Your task to perform on an android device: Go to location settings Image 0: 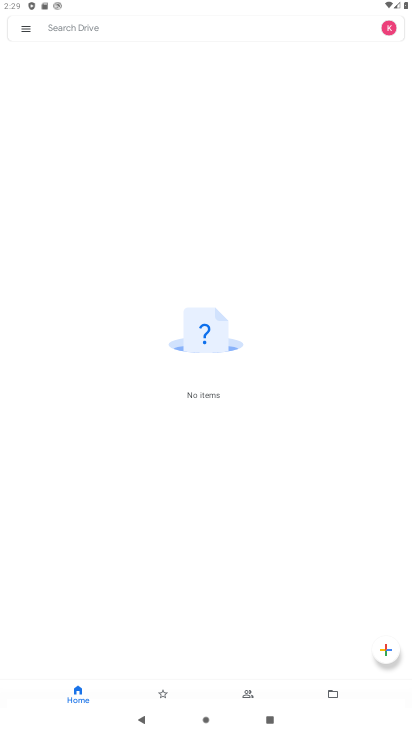
Step 0: press home button
Your task to perform on an android device: Go to location settings Image 1: 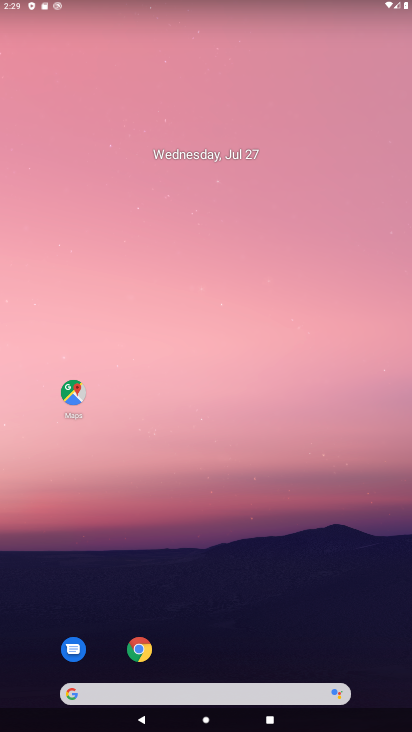
Step 1: drag from (324, 610) to (137, 43)
Your task to perform on an android device: Go to location settings Image 2: 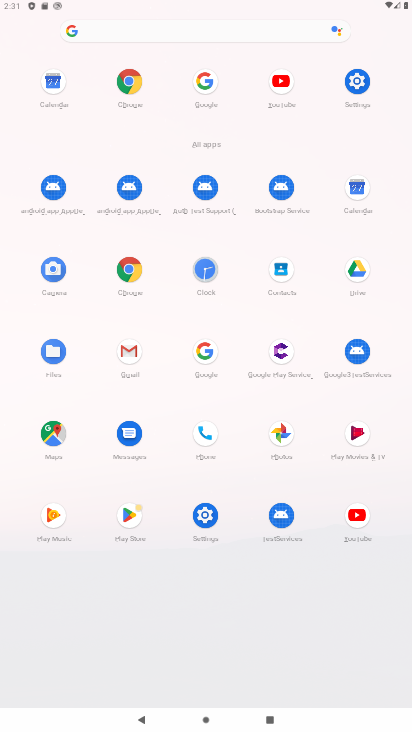
Step 2: click (192, 512)
Your task to perform on an android device: Go to location settings Image 3: 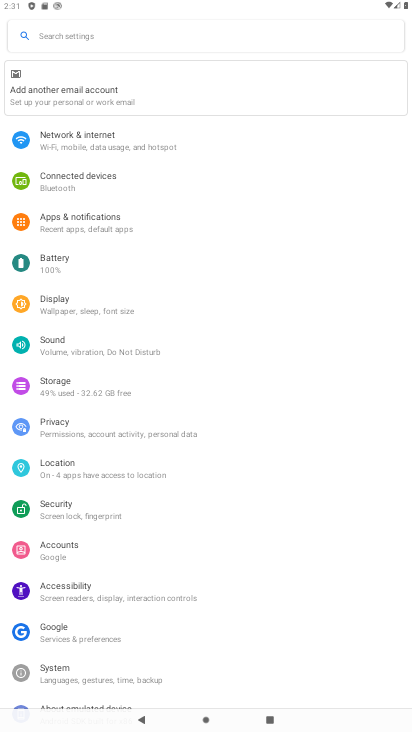
Step 3: click (68, 469)
Your task to perform on an android device: Go to location settings Image 4: 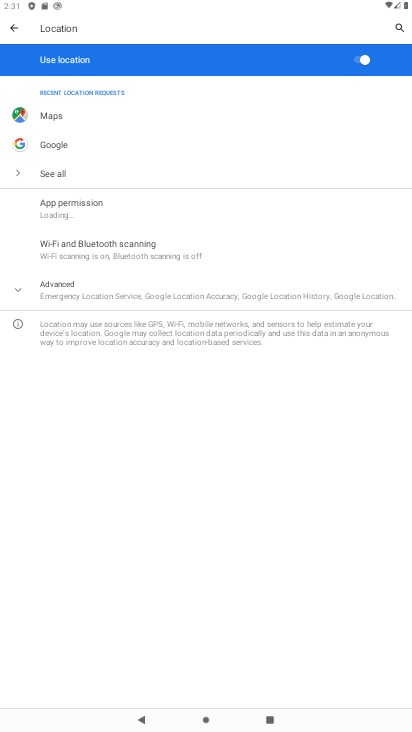
Step 4: task complete